Your task to perform on an android device: delete the emails in spam in the gmail app Image 0: 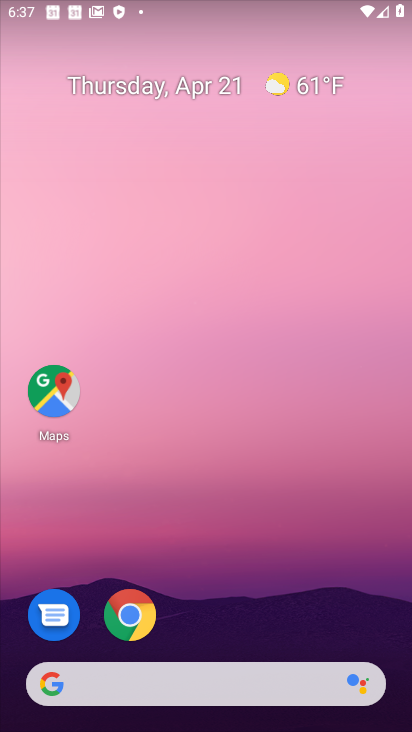
Step 0: drag from (212, 626) to (262, 228)
Your task to perform on an android device: delete the emails in spam in the gmail app Image 1: 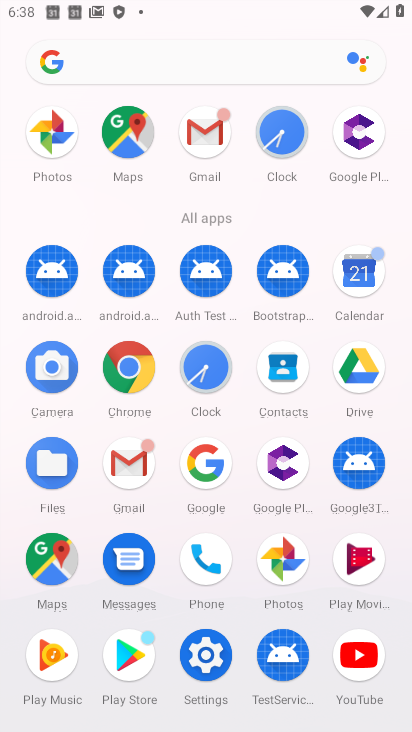
Step 1: click (138, 473)
Your task to perform on an android device: delete the emails in spam in the gmail app Image 2: 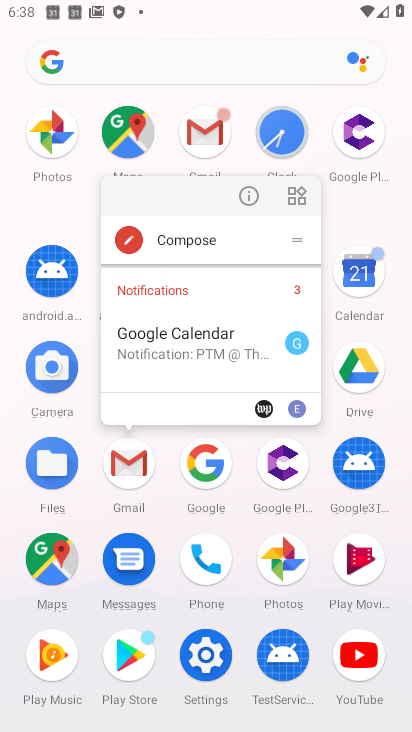
Step 2: click (264, 193)
Your task to perform on an android device: delete the emails in spam in the gmail app Image 3: 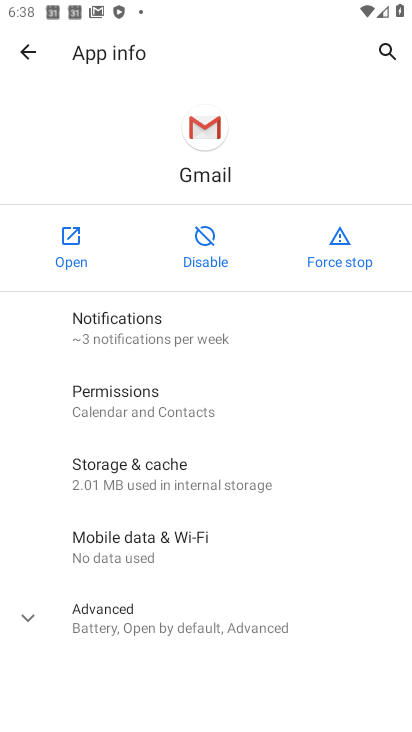
Step 3: click (77, 227)
Your task to perform on an android device: delete the emails in spam in the gmail app Image 4: 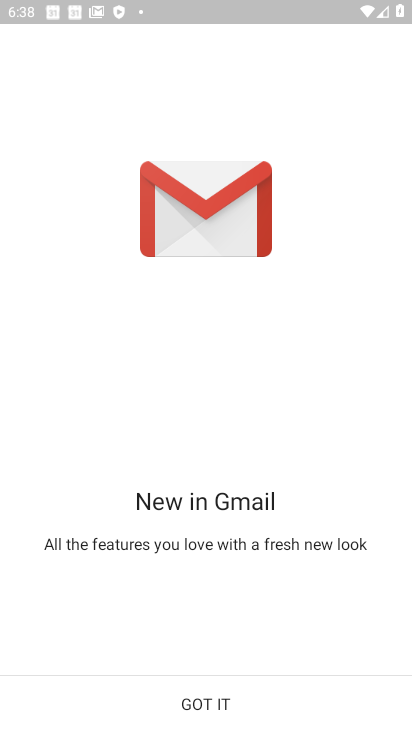
Step 4: click (208, 684)
Your task to perform on an android device: delete the emails in spam in the gmail app Image 5: 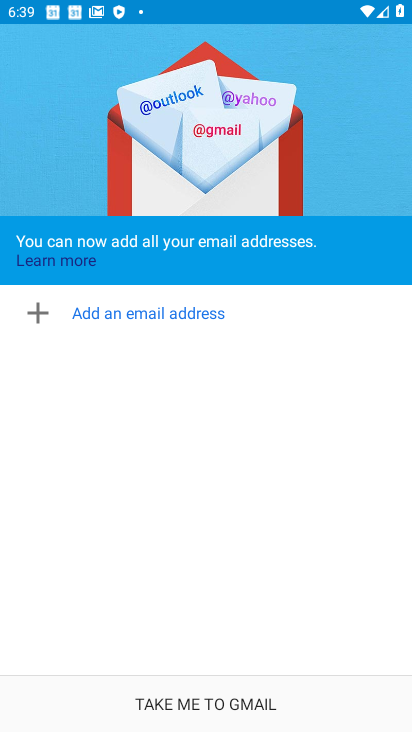
Step 5: click (206, 690)
Your task to perform on an android device: delete the emails in spam in the gmail app Image 6: 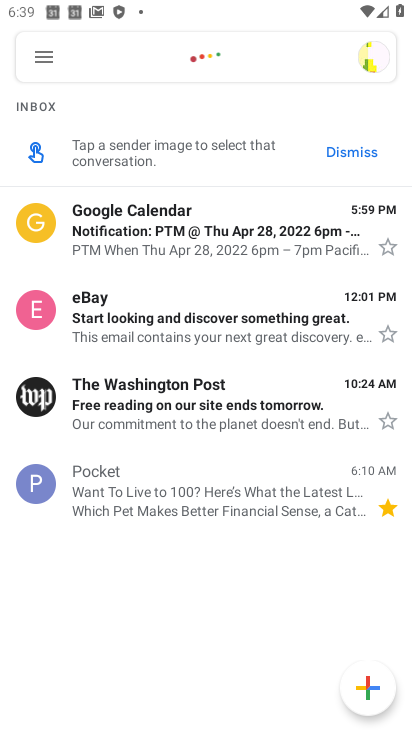
Step 6: click (37, 49)
Your task to perform on an android device: delete the emails in spam in the gmail app Image 7: 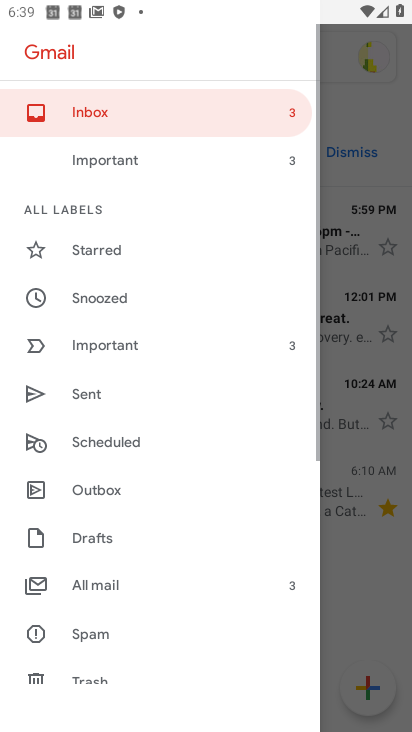
Step 7: drag from (197, 491) to (292, 184)
Your task to perform on an android device: delete the emails in spam in the gmail app Image 8: 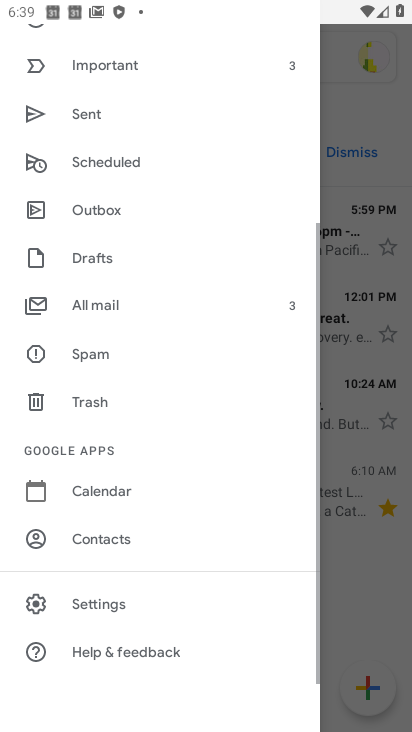
Step 8: click (66, 366)
Your task to perform on an android device: delete the emails in spam in the gmail app Image 9: 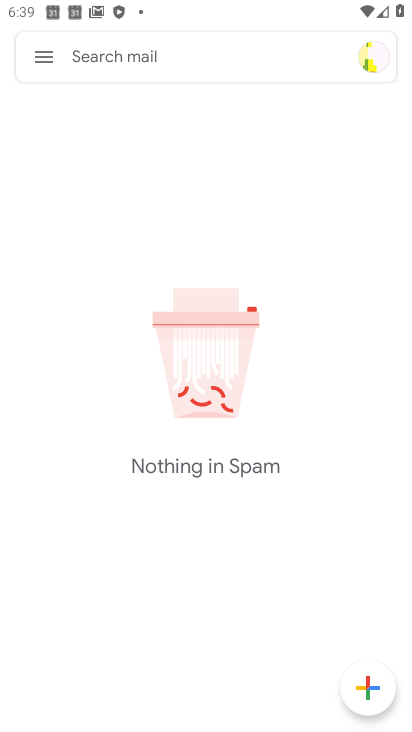
Step 9: task complete